Your task to perform on an android device: open app "Yahoo Mail" (install if not already installed) and go to login screen Image 0: 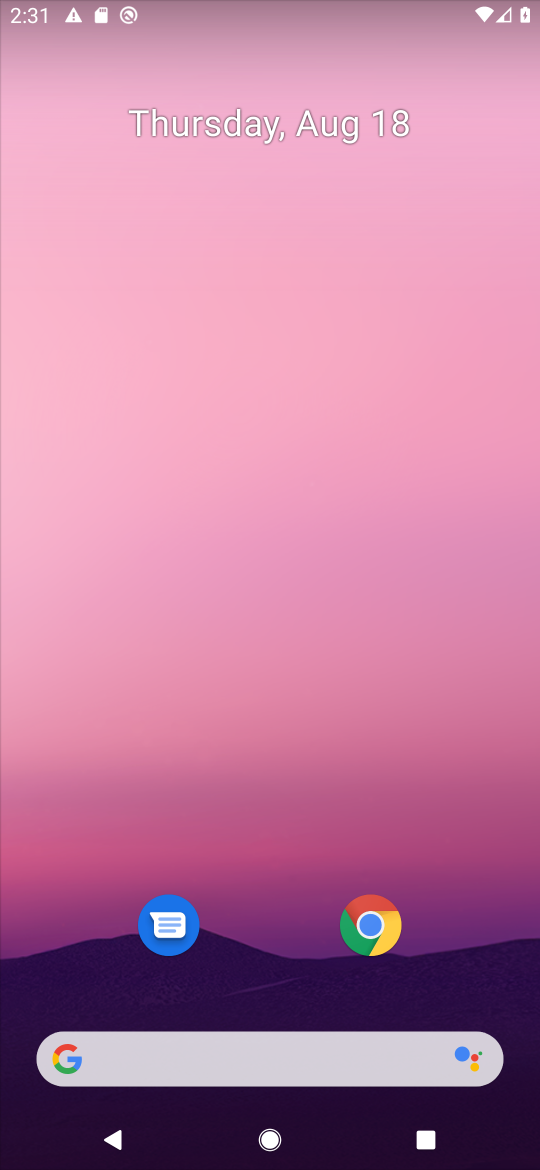
Step 0: drag from (251, 576) to (251, 120)
Your task to perform on an android device: open app "Yahoo Mail" (install if not already installed) and go to login screen Image 1: 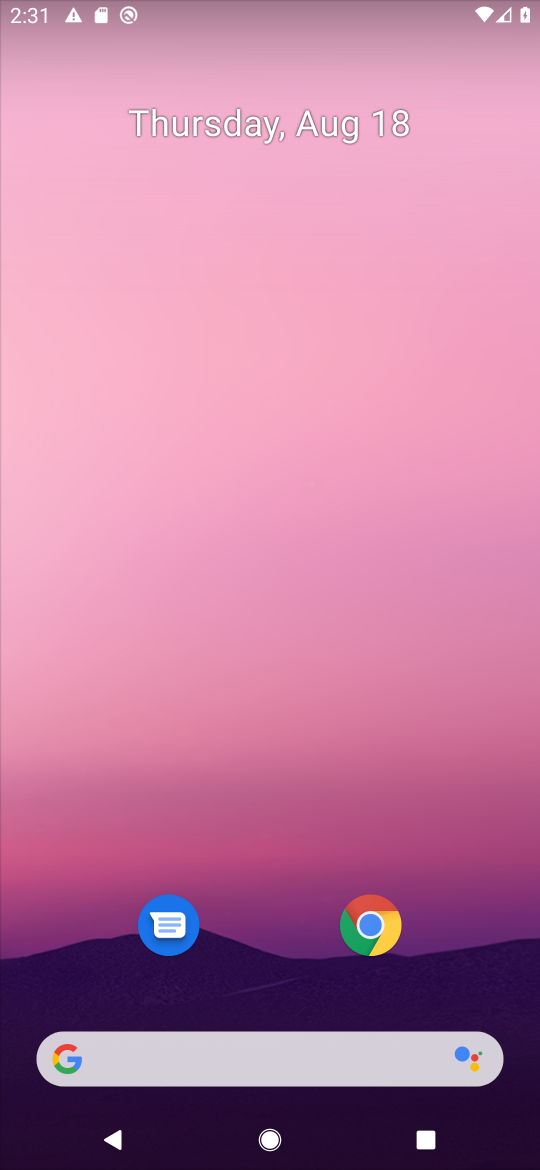
Step 1: click (251, 982)
Your task to perform on an android device: open app "Yahoo Mail" (install if not already installed) and go to login screen Image 2: 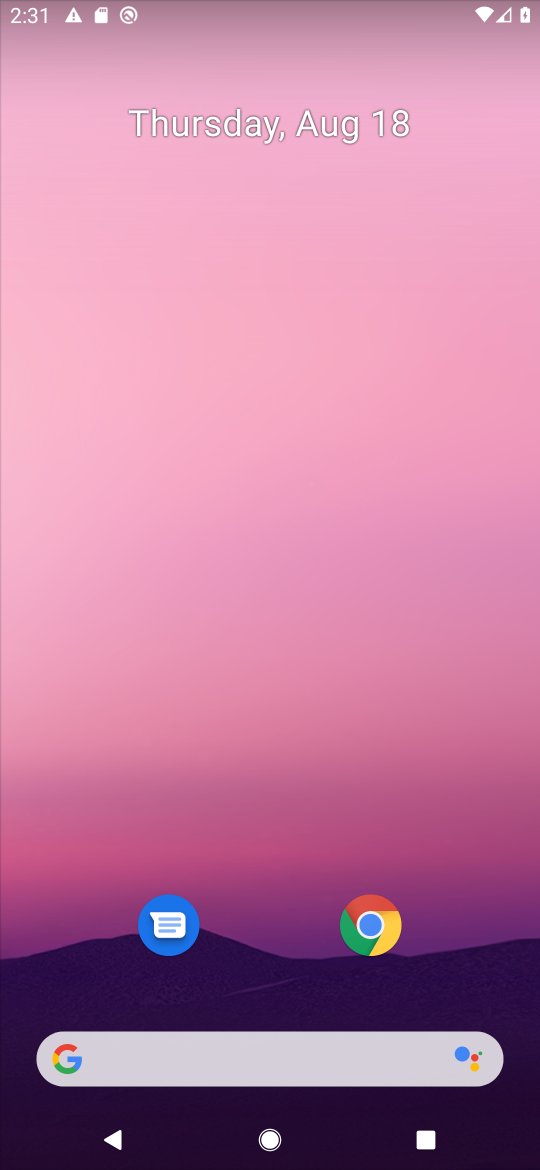
Step 2: drag from (282, 977) to (314, 86)
Your task to perform on an android device: open app "Yahoo Mail" (install if not already installed) and go to login screen Image 3: 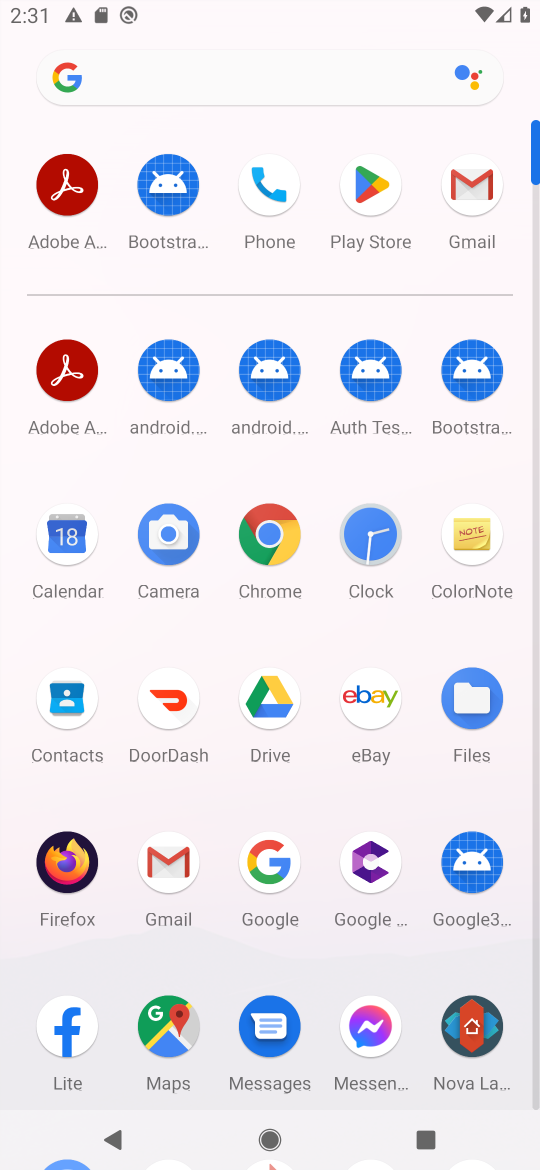
Step 3: click (369, 184)
Your task to perform on an android device: open app "Yahoo Mail" (install if not already installed) and go to login screen Image 4: 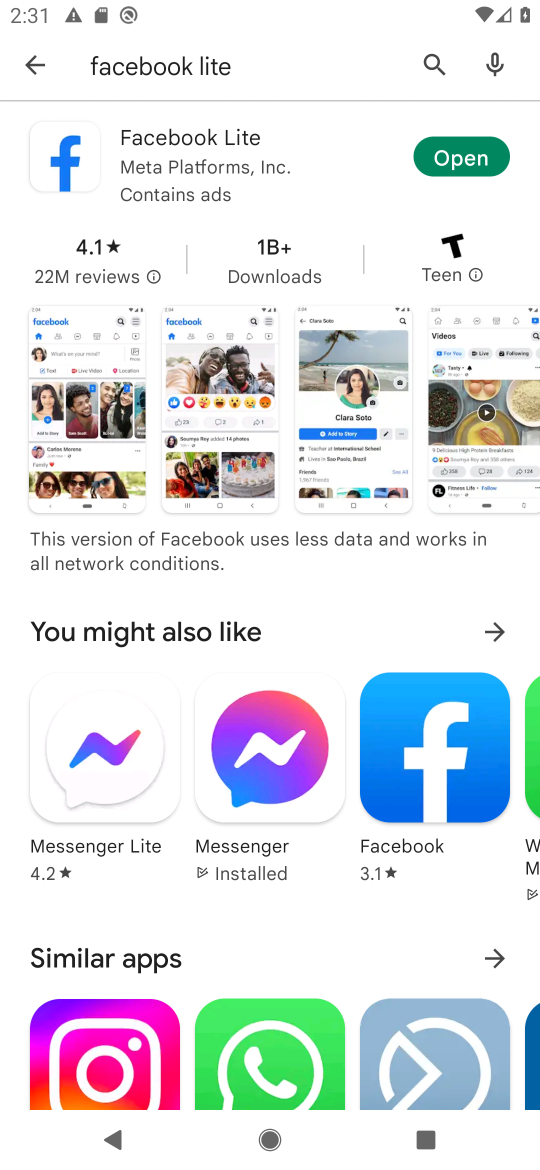
Step 4: click (34, 68)
Your task to perform on an android device: open app "Yahoo Mail" (install if not already installed) and go to login screen Image 5: 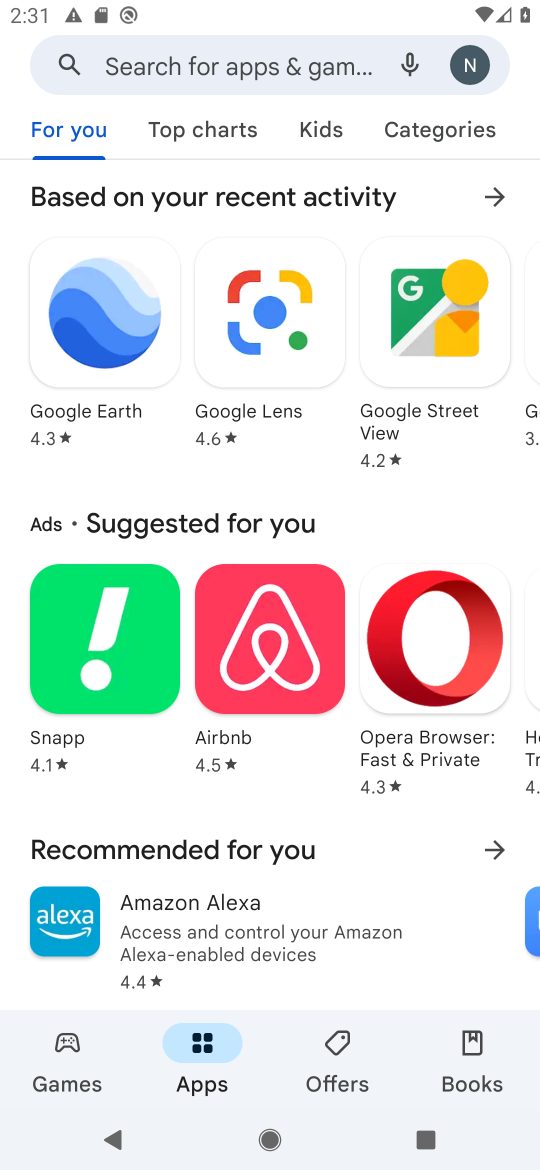
Step 5: click (227, 71)
Your task to perform on an android device: open app "Yahoo Mail" (install if not already installed) and go to login screen Image 6: 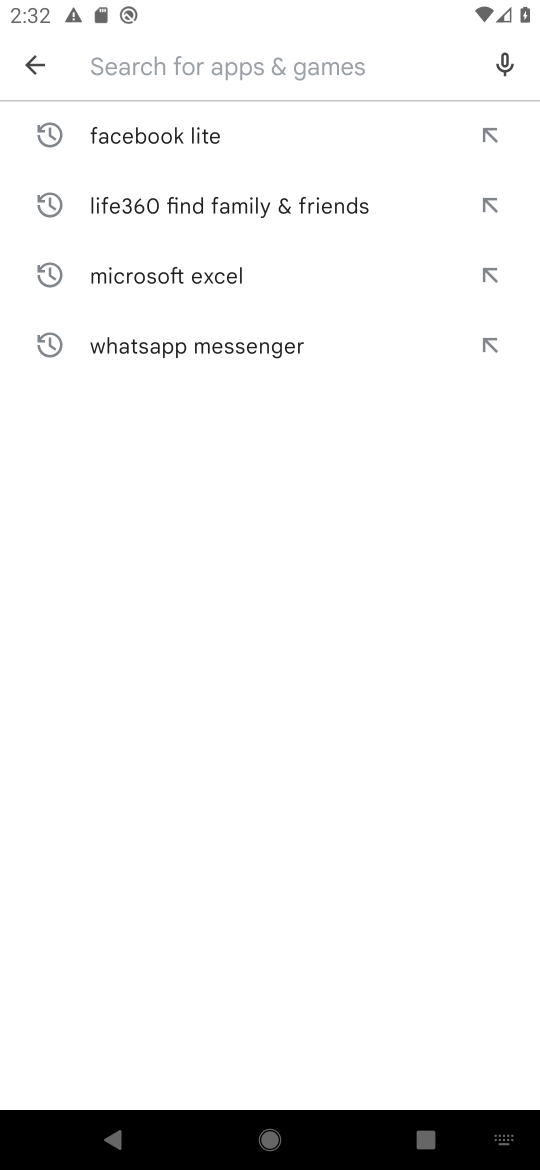
Step 6: type "Yahoo Mail"
Your task to perform on an android device: open app "Yahoo Mail" (install if not already installed) and go to login screen Image 7: 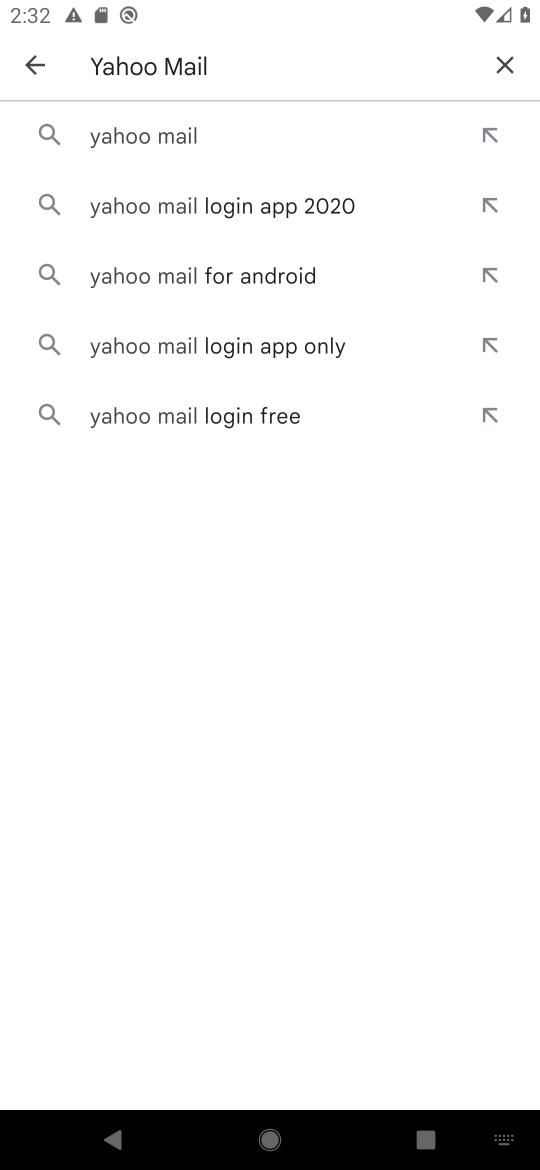
Step 7: click (172, 127)
Your task to perform on an android device: open app "Yahoo Mail" (install if not already installed) and go to login screen Image 8: 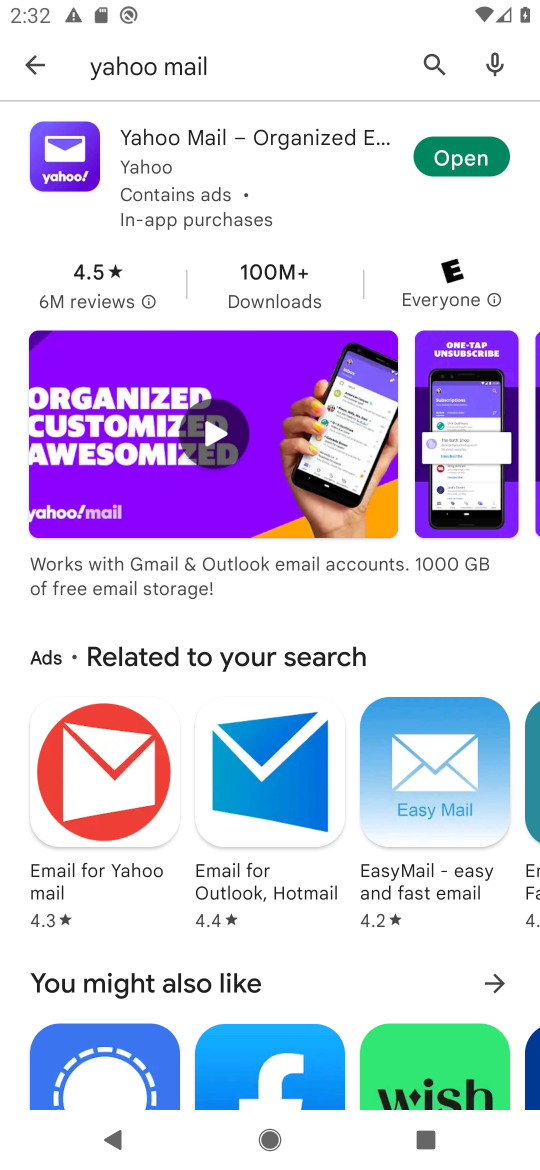
Step 8: click (465, 154)
Your task to perform on an android device: open app "Yahoo Mail" (install if not already installed) and go to login screen Image 9: 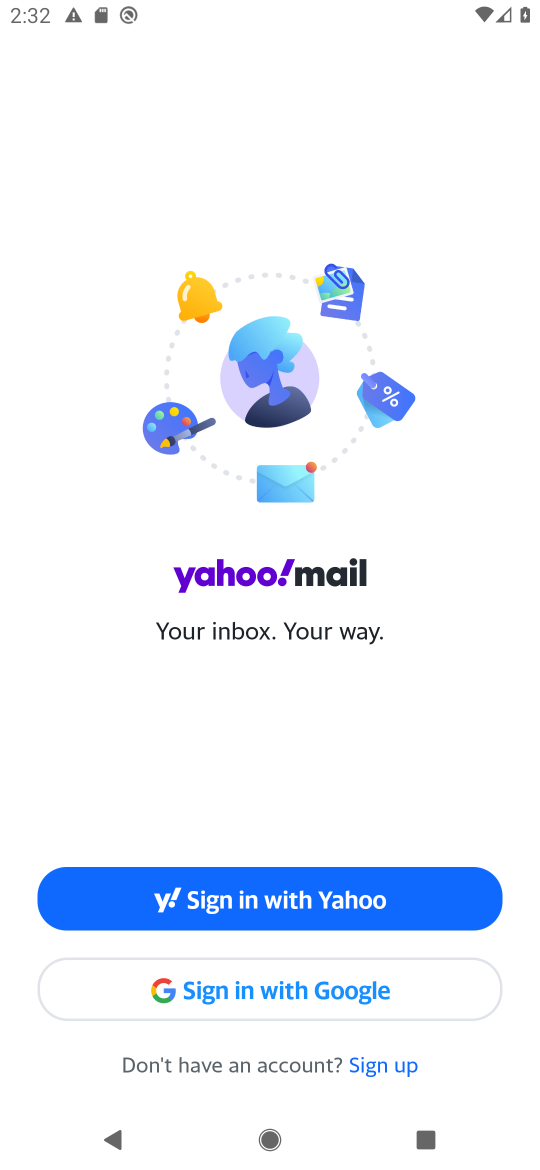
Step 9: task complete